Your task to perform on an android device: What's the weather? Image 0: 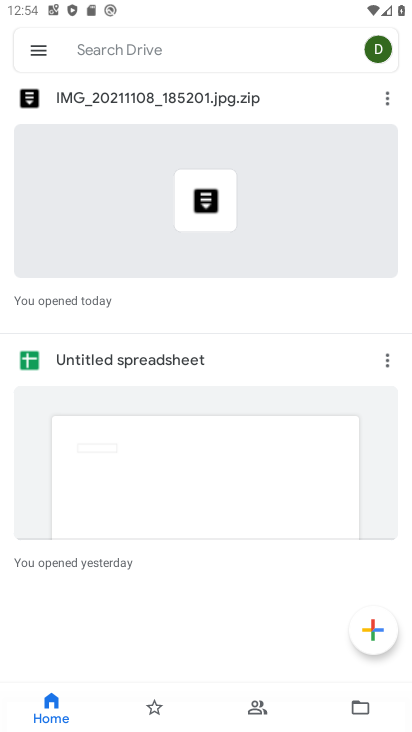
Step 0: press home button
Your task to perform on an android device: What's the weather? Image 1: 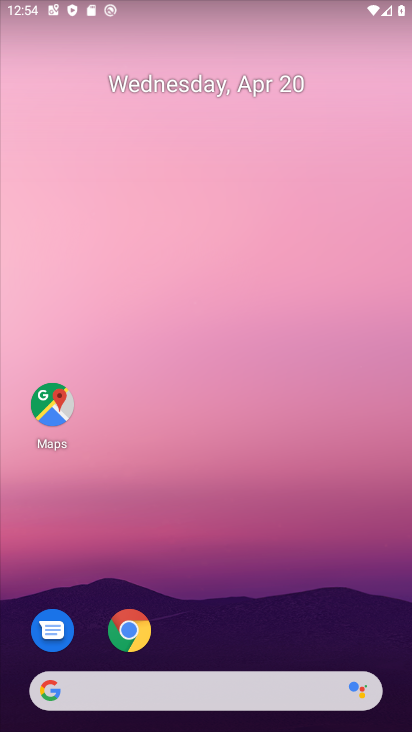
Step 1: click (129, 626)
Your task to perform on an android device: What's the weather? Image 2: 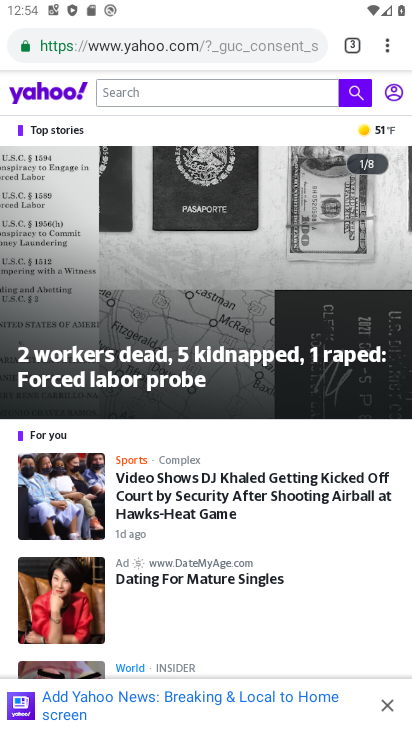
Step 2: click (356, 46)
Your task to perform on an android device: What's the weather? Image 3: 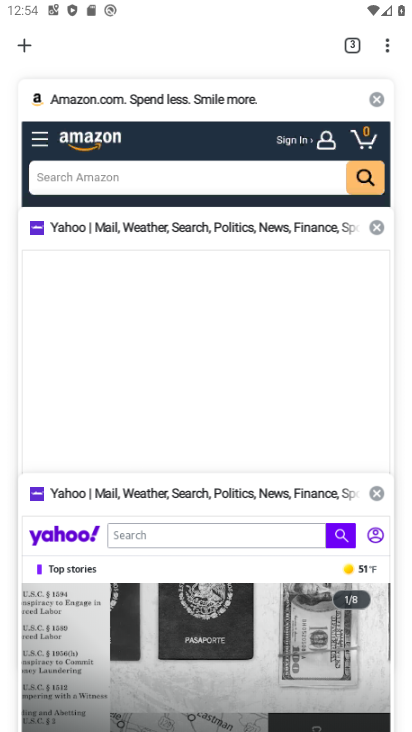
Step 3: click (23, 47)
Your task to perform on an android device: What's the weather? Image 4: 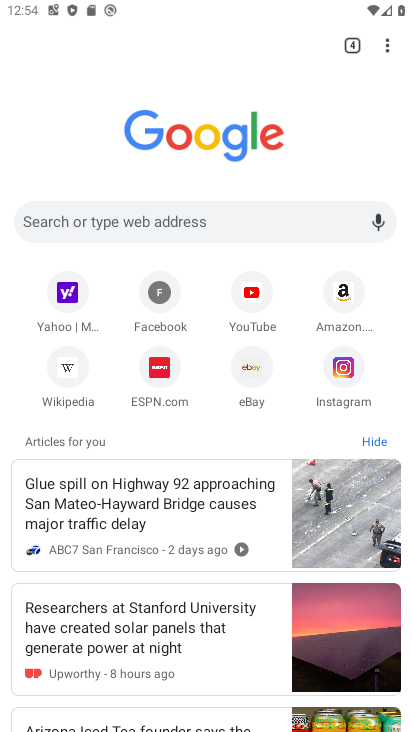
Step 4: click (152, 217)
Your task to perform on an android device: What's the weather? Image 5: 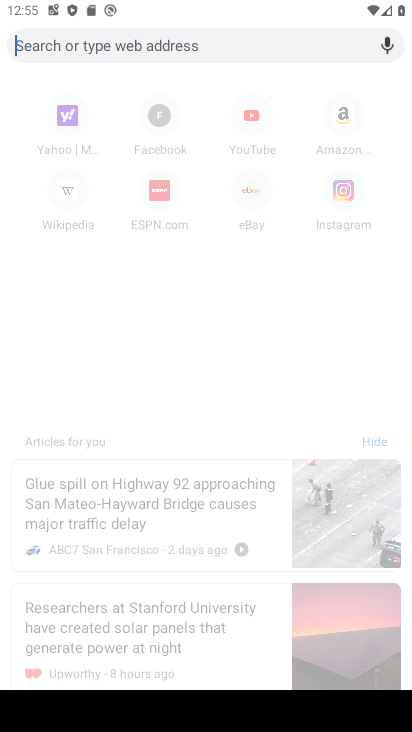
Step 5: type "what's the weather"
Your task to perform on an android device: What's the weather? Image 6: 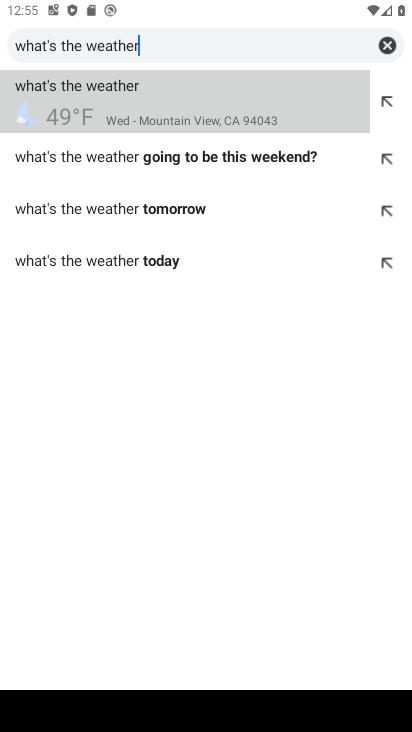
Step 6: click (151, 104)
Your task to perform on an android device: What's the weather? Image 7: 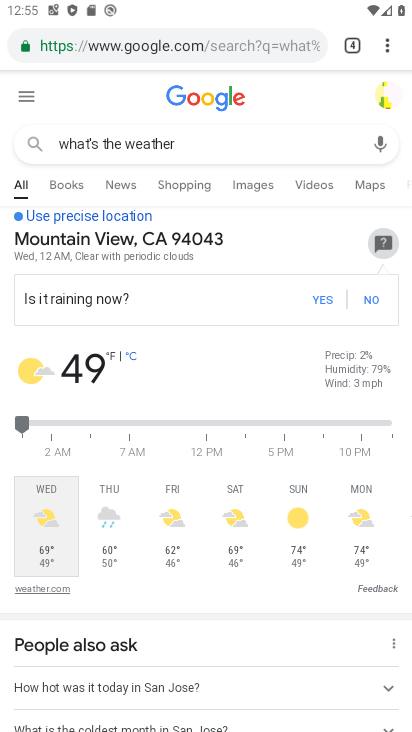
Step 7: task complete